Your task to perform on an android device: turn off wifi Image 0: 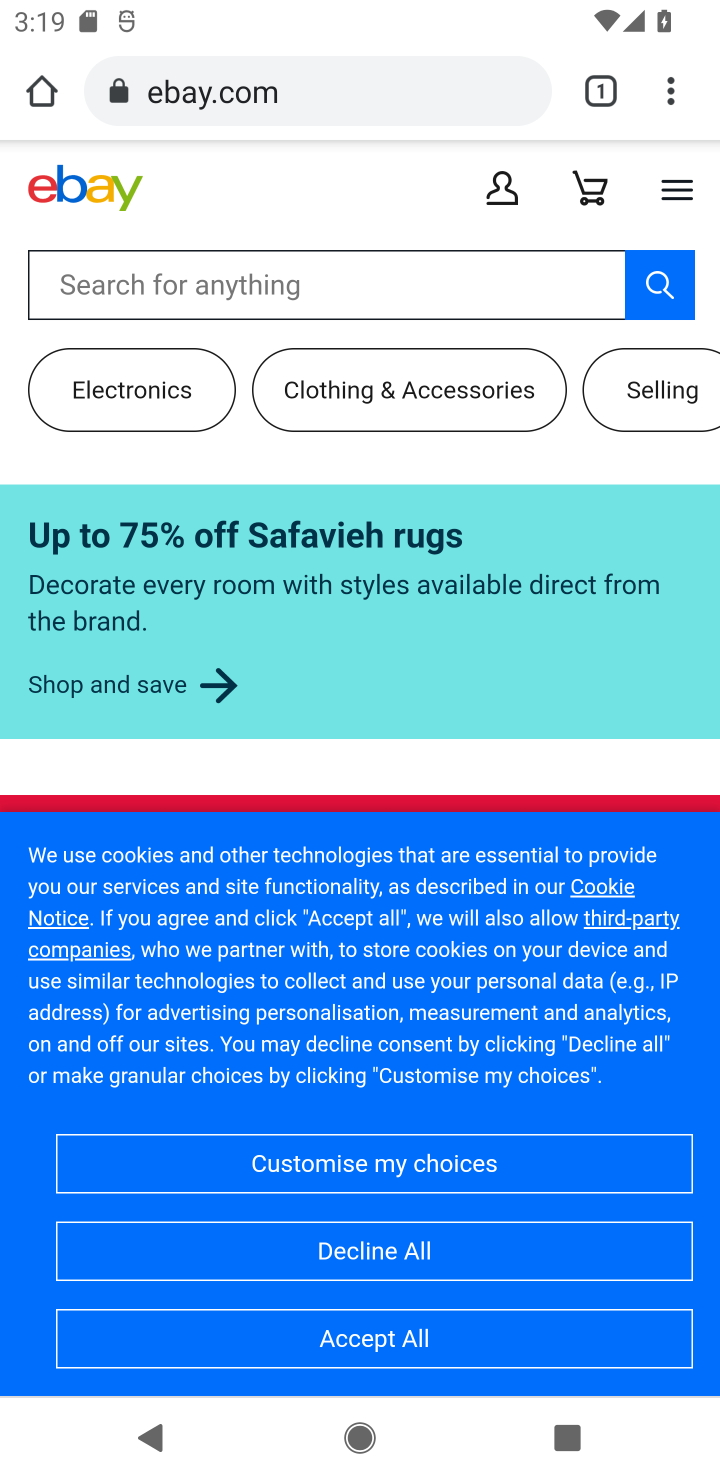
Step 0: drag from (623, 16) to (533, 1268)
Your task to perform on an android device: turn off wifi Image 1: 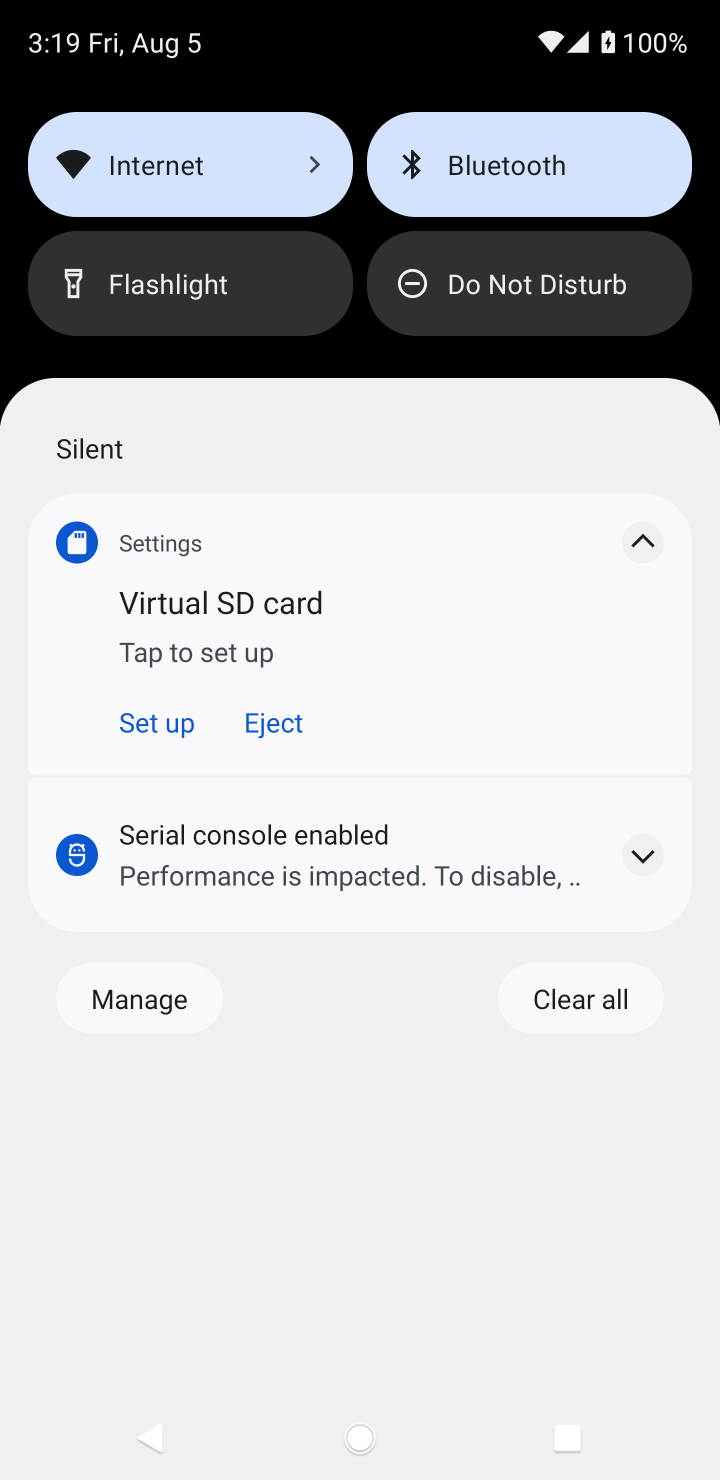
Step 1: click (190, 194)
Your task to perform on an android device: turn off wifi Image 2: 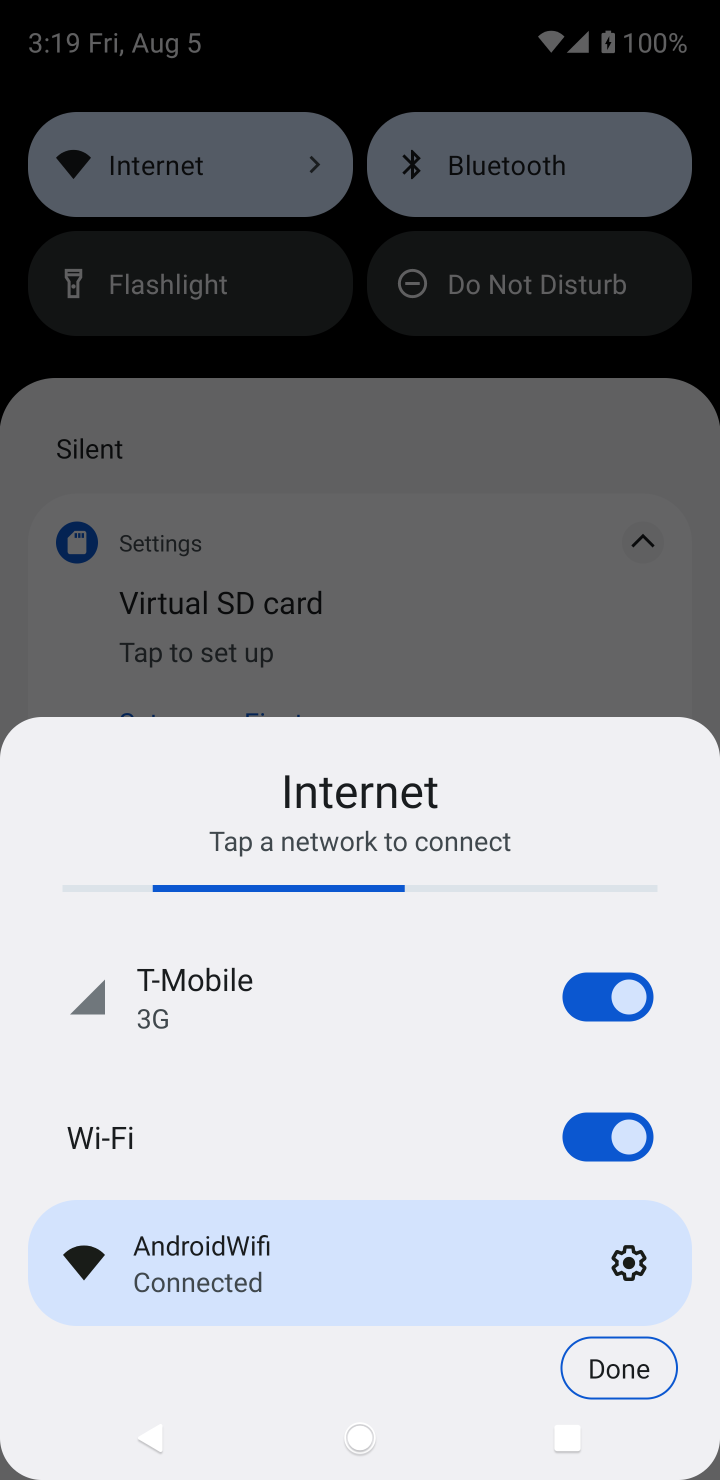
Step 2: click (589, 1134)
Your task to perform on an android device: turn off wifi Image 3: 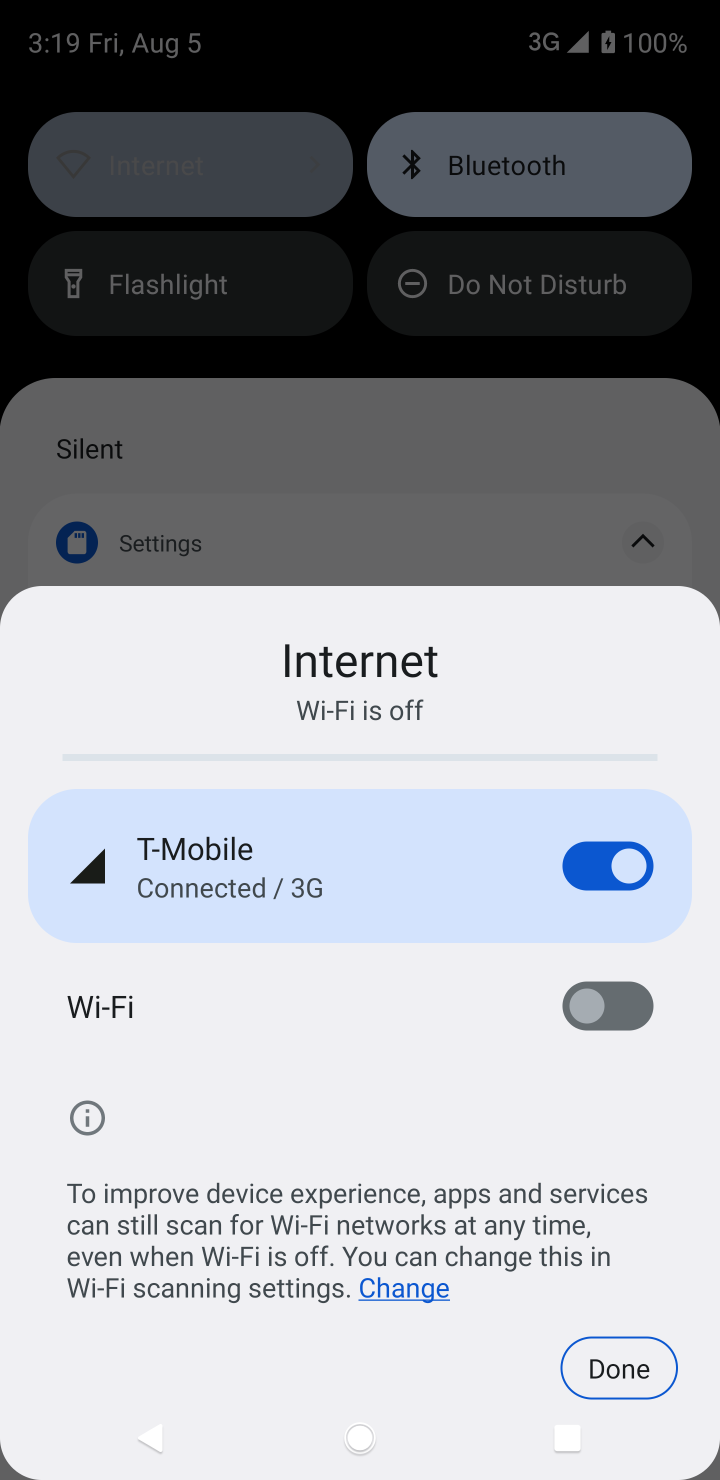
Step 3: task complete